Your task to perform on an android device: Show me the alarms in the clock app Image 0: 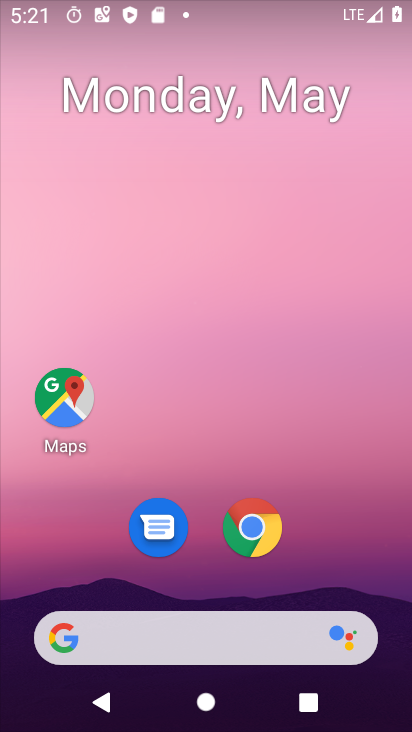
Step 0: drag from (399, 662) to (293, 226)
Your task to perform on an android device: Show me the alarms in the clock app Image 1: 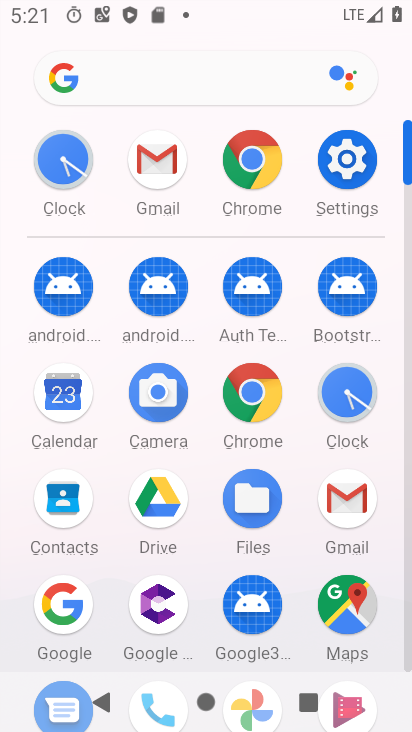
Step 1: click (336, 395)
Your task to perform on an android device: Show me the alarms in the clock app Image 2: 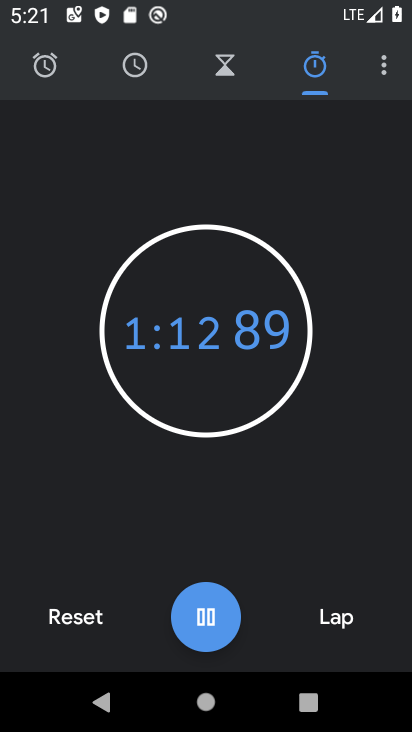
Step 2: click (42, 71)
Your task to perform on an android device: Show me the alarms in the clock app Image 3: 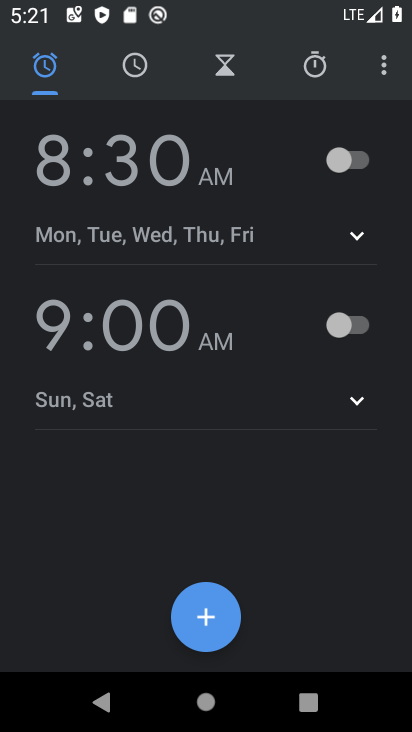
Step 3: task complete